Your task to perform on an android device: open a bookmark in the chrome app Image 0: 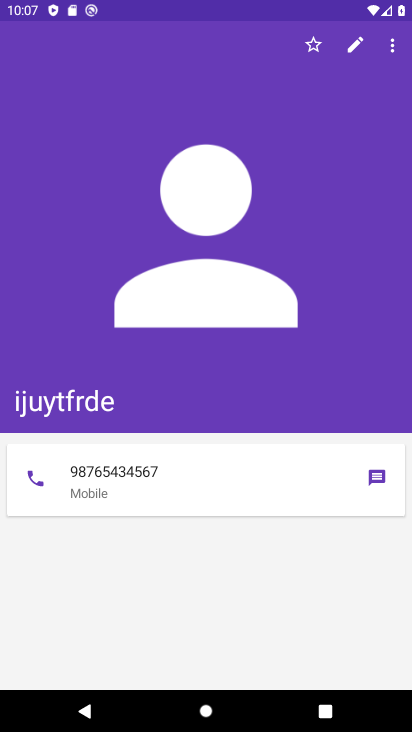
Step 0: press home button
Your task to perform on an android device: open a bookmark in the chrome app Image 1: 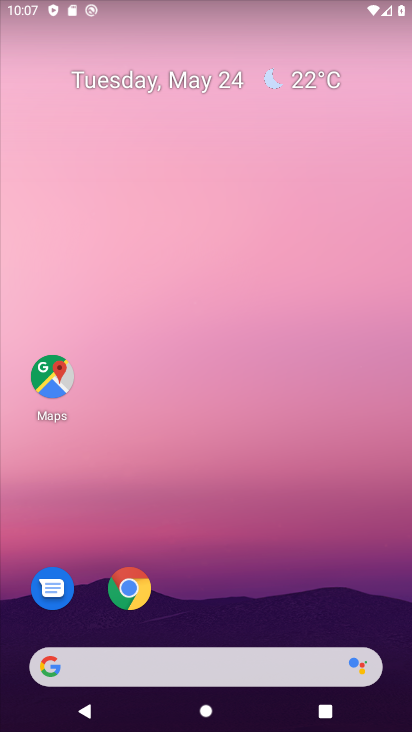
Step 1: click (115, 590)
Your task to perform on an android device: open a bookmark in the chrome app Image 2: 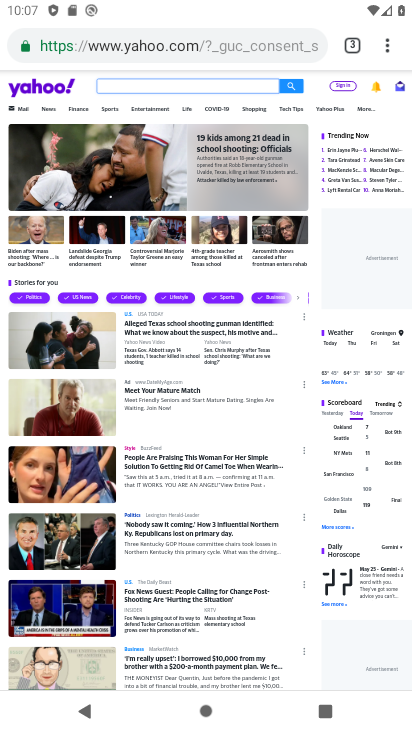
Step 2: click (388, 41)
Your task to perform on an android device: open a bookmark in the chrome app Image 3: 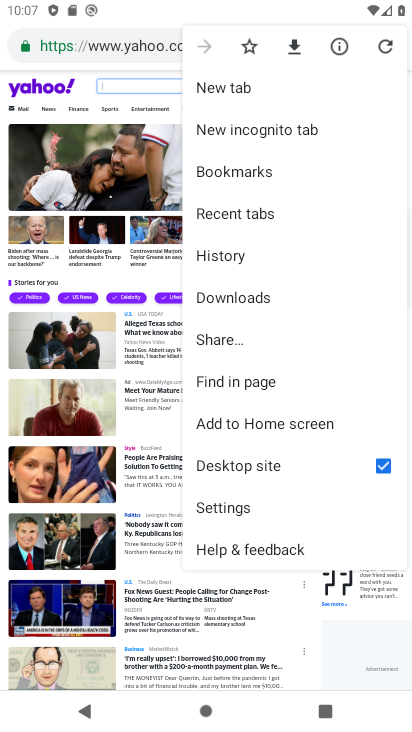
Step 3: click (246, 183)
Your task to perform on an android device: open a bookmark in the chrome app Image 4: 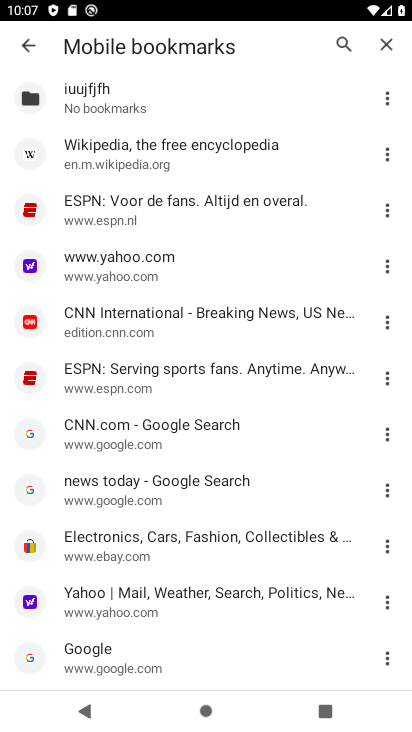
Step 4: click (185, 210)
Your task to perform on an android device: open a bookmark in the chrome app Image 5: 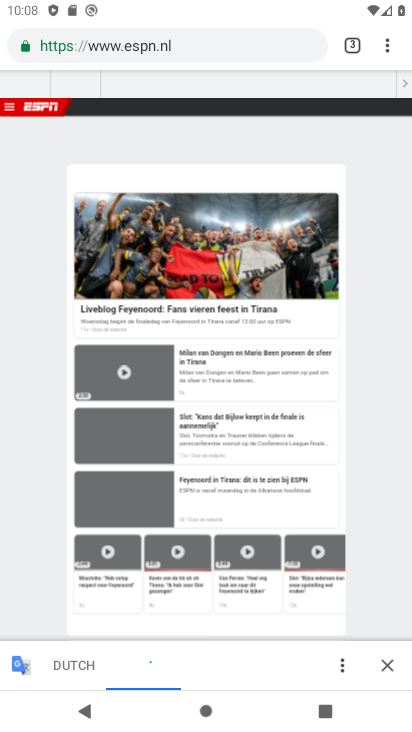
Step 5: task complete